Your task to perform on an android device: Open Chrome and go to the settings page Image 0: 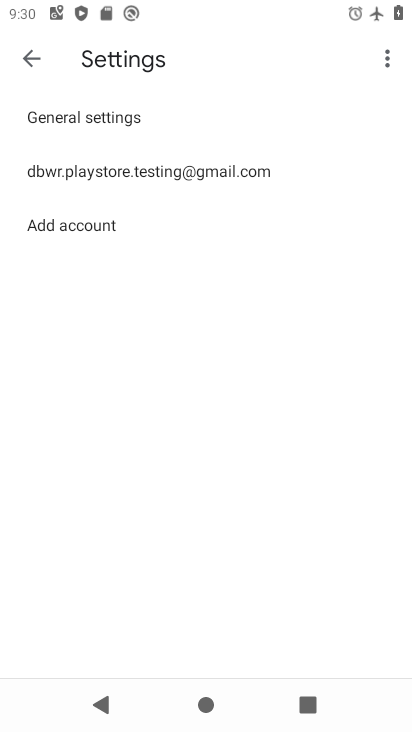
Step 0: press home button
Your task to perform on an android device: Open Chrome and go to the settings page Image 1: 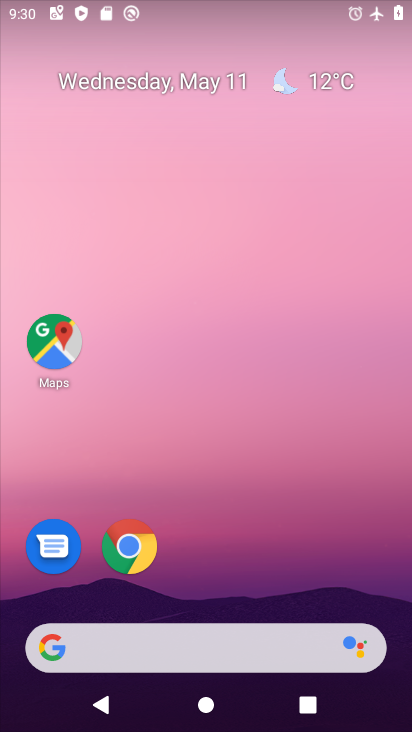
Step 1: click (130, 546)
Your task to perform on an android device: Open Chrome and go to the settings page Image 2: 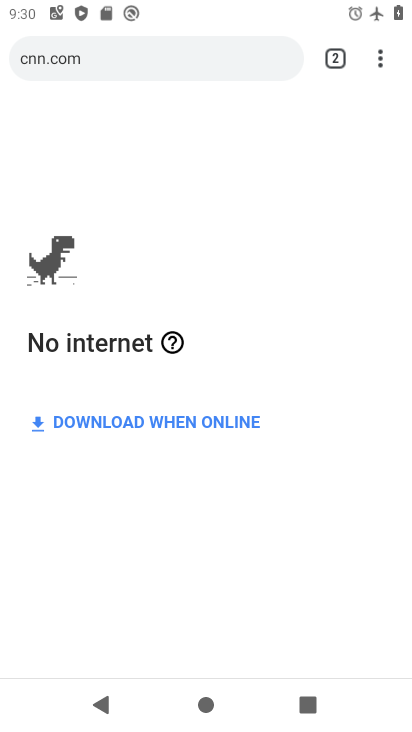
Step 2: click (377, 62)
Your task to perform on an android device: Open Chrome and go to the settings page Image 3: 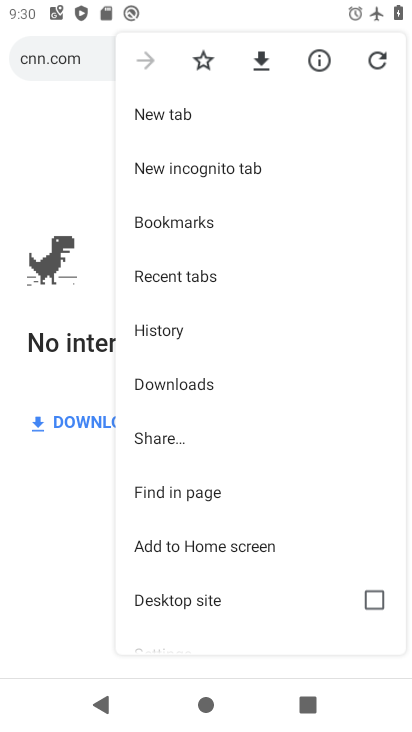
Step 3: task complete